Your task to perform on an android device: Open Google Image 0: 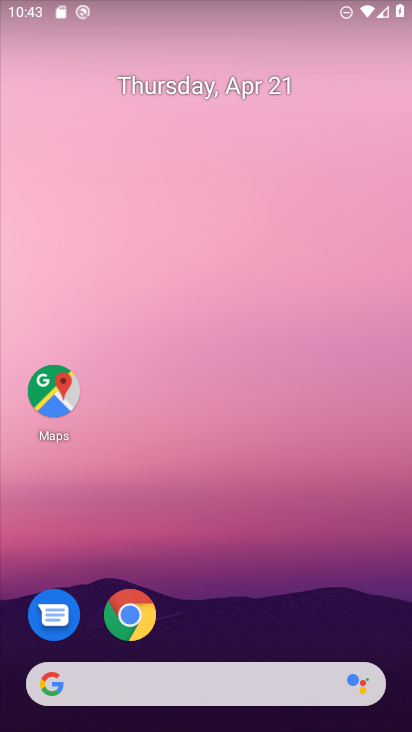
Step 0: drag from (213, 621) to (216, 359)
Your task to perform on an android device: Open Google Image 1: 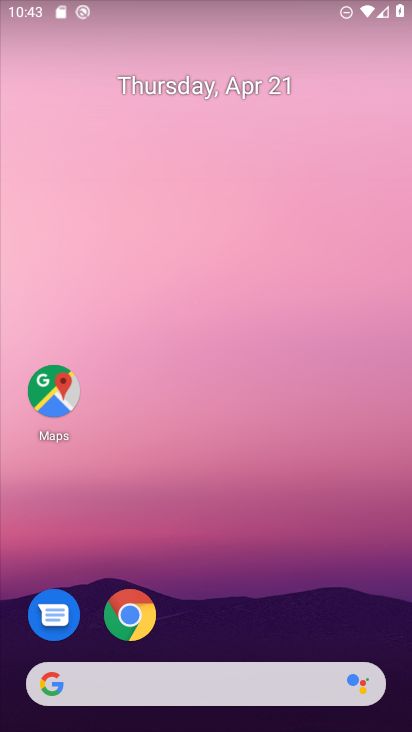
Step 1: drag from (212, 702) to (214, 423)
Your task to perform on an android device: Open Google Image 2: 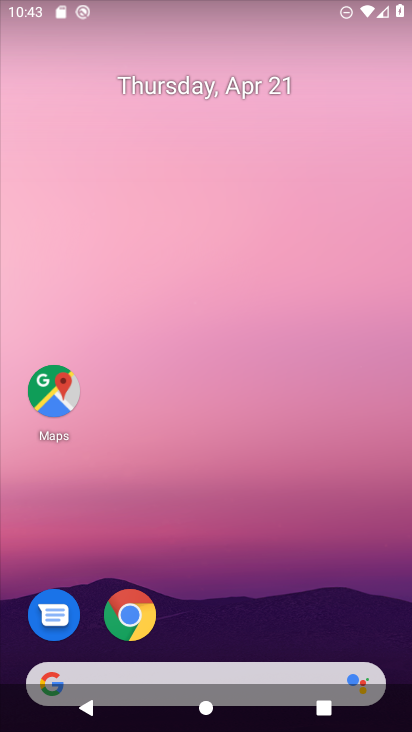
Step 2: drag from (208, 719) to (209, 211)
Your task to perform on an android device: Open Google Image 3: 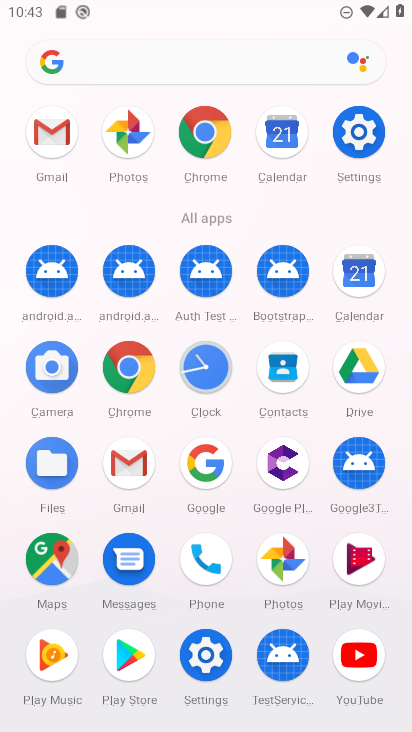
Step 3: click (208, 464)
Your task to perform on an android device: Open Google Image 4: 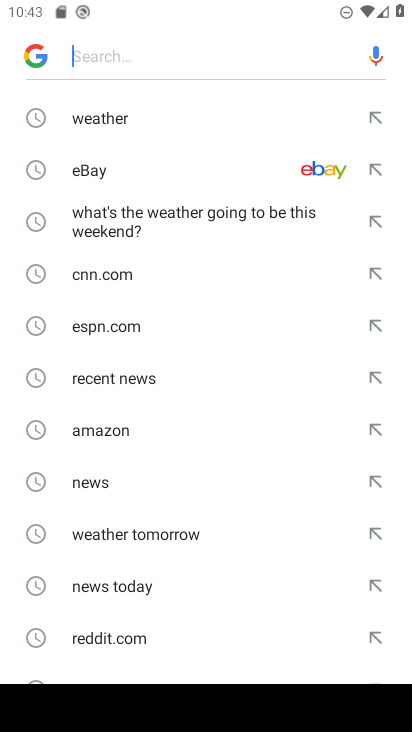
Step 4: task complete